Your task to perform on an android device: Open calendar and show me the first week of next month Image 0: 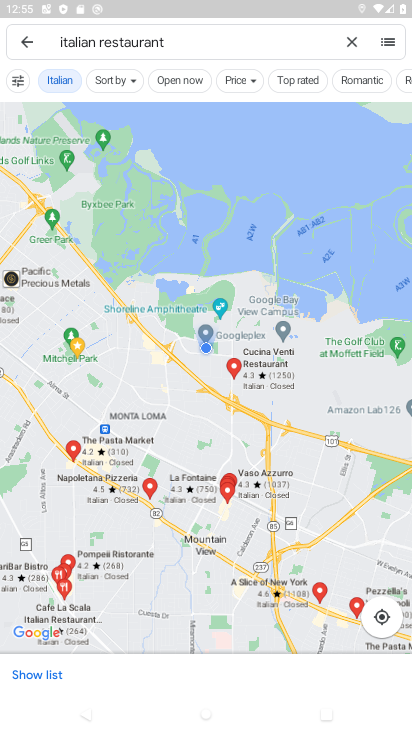
Step 0: press home button
Your task to perform on an android device: Open calendar and show me the first week of next month Image 1: 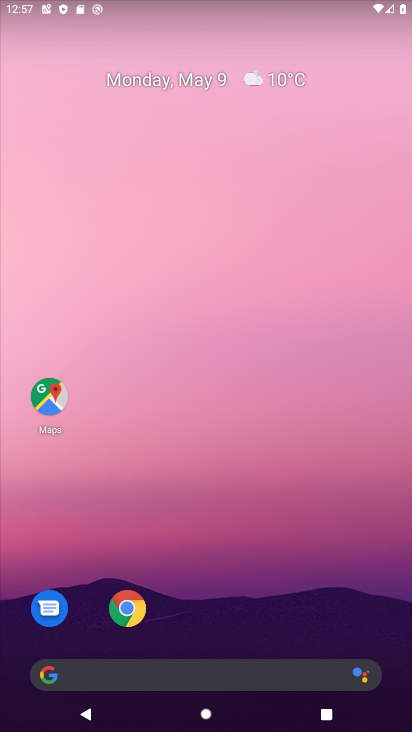
Step 1: drag from (309, 592) to (332, 188)
Your task to perform on an android device: Open calendar and show me the first week of next month Image 2: 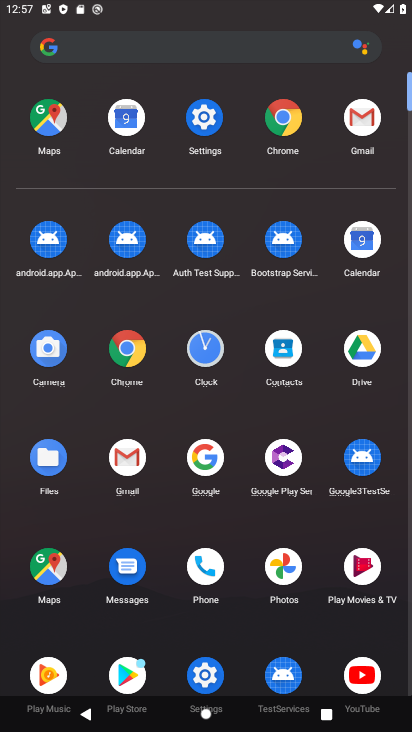
Step 2: click (368, 271)
Your task to perform on an android device: Open calendar and show me the first week of next month Image 3: 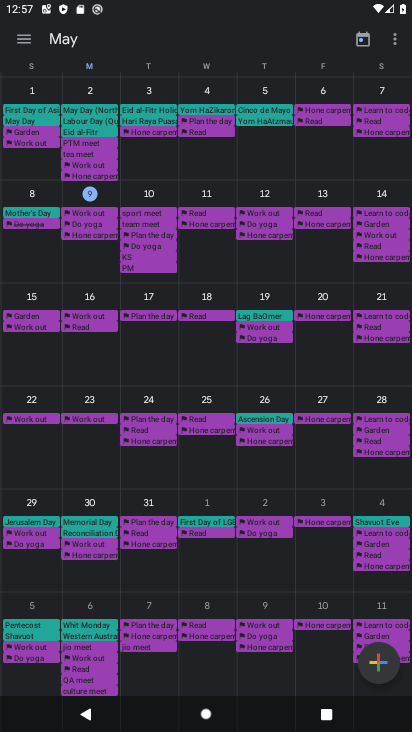
Step 3: click (76, 38)
Your task to perform on an android device: Open calendar and show me the first week of next month Image 4: 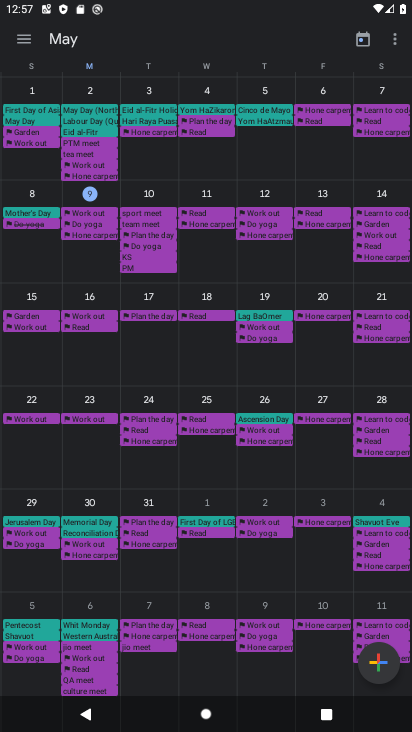
Step 4: click (54, 38)
Your task to perform on an android device: Open calendar and show me the first week of next month Image 5: 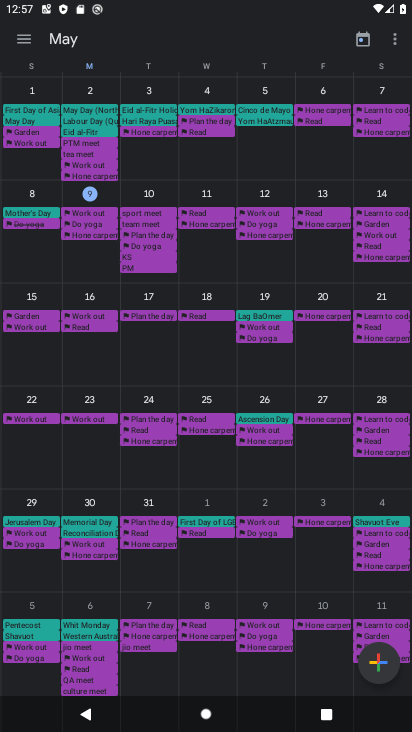
Step 5: task complete